Your task to perform on an android device: Do I have any events today? Image 0: 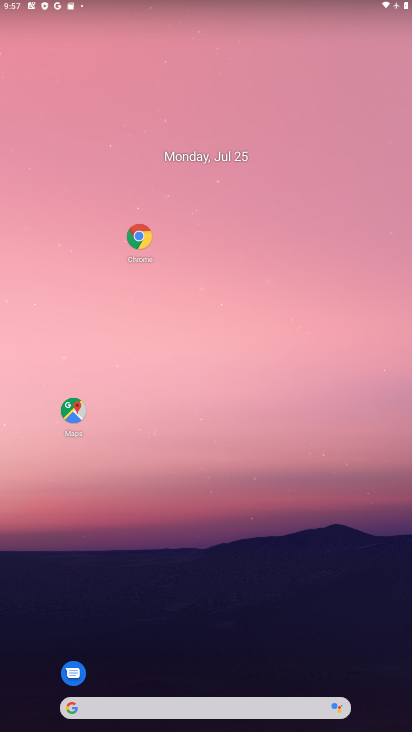
Step 0: click (128, 249)
Your task to perform on an android device: Do I have any events today? Image 1: 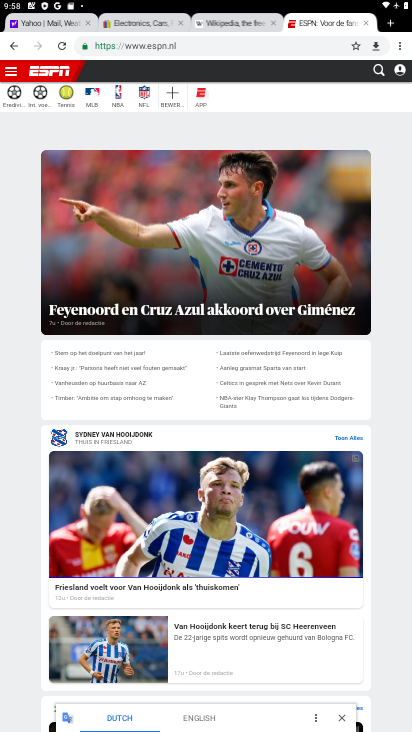
Step 1: task complete